Your task to perform on an android device: Go to Google Image 0: 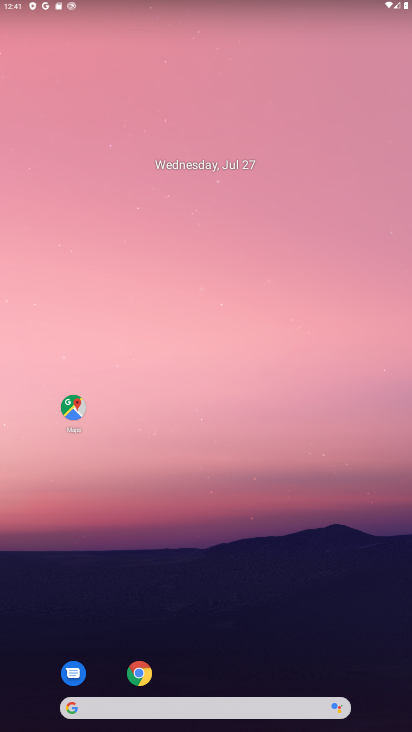
Step 0: drag from (238, 675) to (252, 3)
Your task to perform on an android device: Go to Google Image 1: 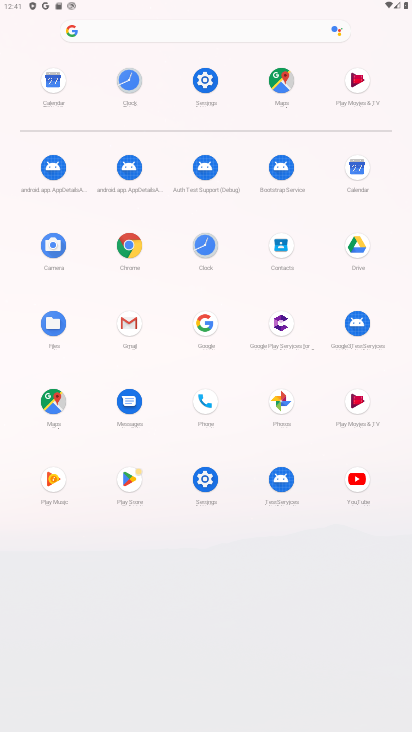
Step 1: click (203, 326)
Your task to perform on an android device: Go to Google Image 2: 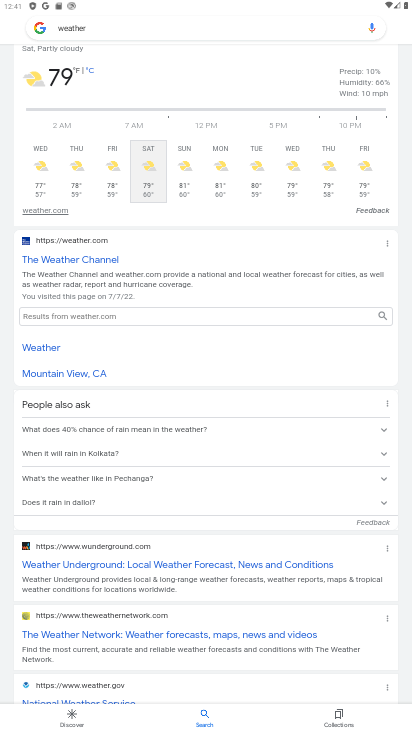
Step 2: task complete